Your task to perform on an android device: set an alarm Image 0: 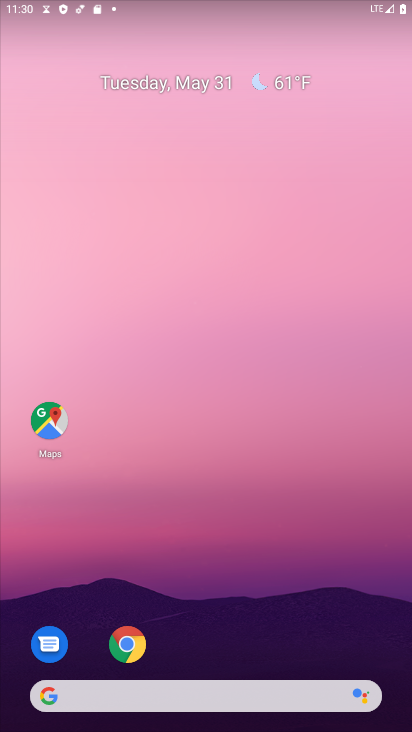
Step 0: drag from (252, 585) to (285, 196)
Your task to perform on an android device: set an alarm Image 1: 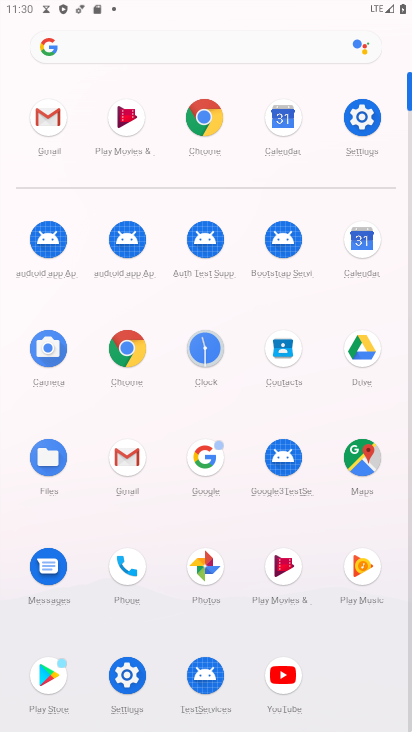
Step 1: click (206, 342)
Your task to perform on an android device: set an alarm Image 2: 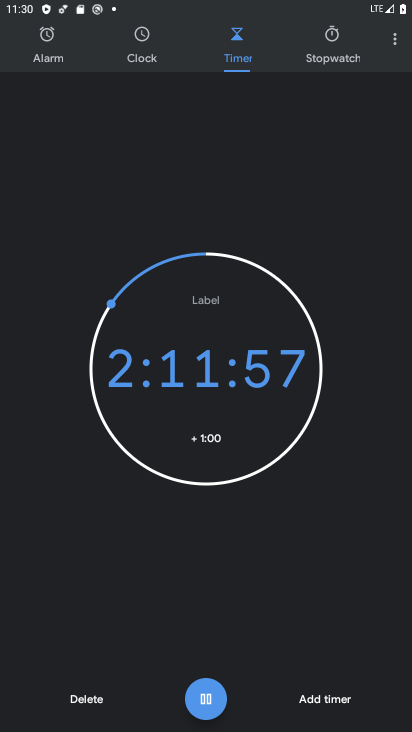
Step 2: click (49, 51)
Your task to perform on an android device: set an alarm Image 3: 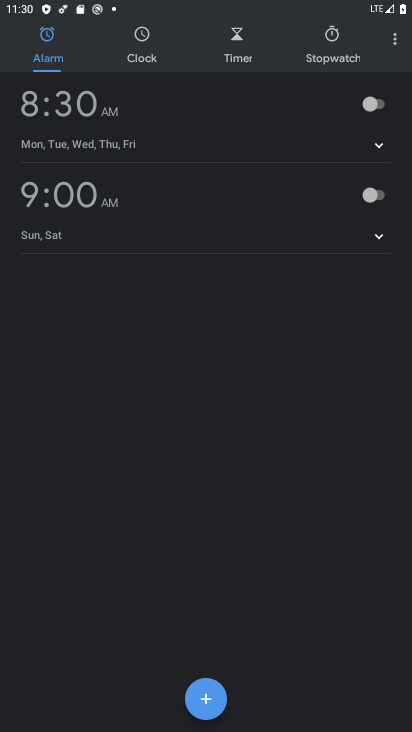
Step 3: click (374, 101)
Your task to perform on an android device: set an alarm Image 4: 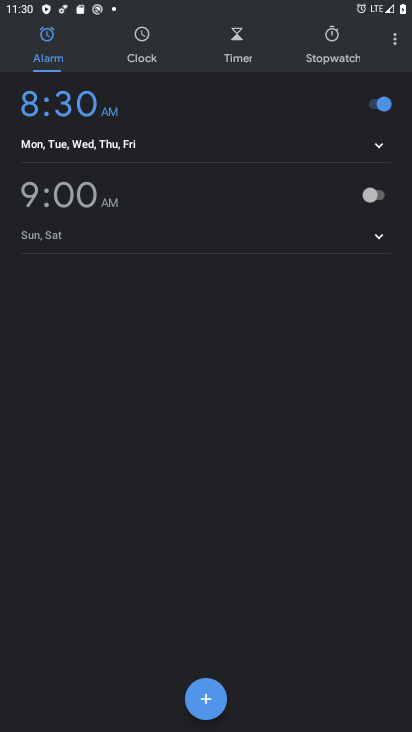
Step 4: task complete